Your task to perform on an android device: toggle notification dots Image 0: 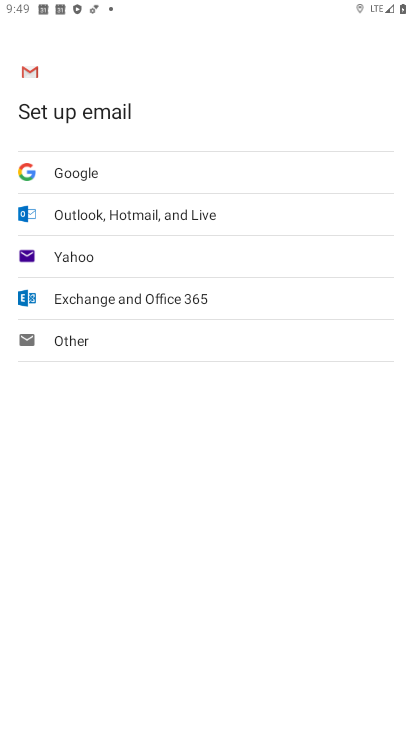
Step 0: drag from (223, 535) to (216, 6)
Your task to perform on an android device: toggle notification dots Image 1: 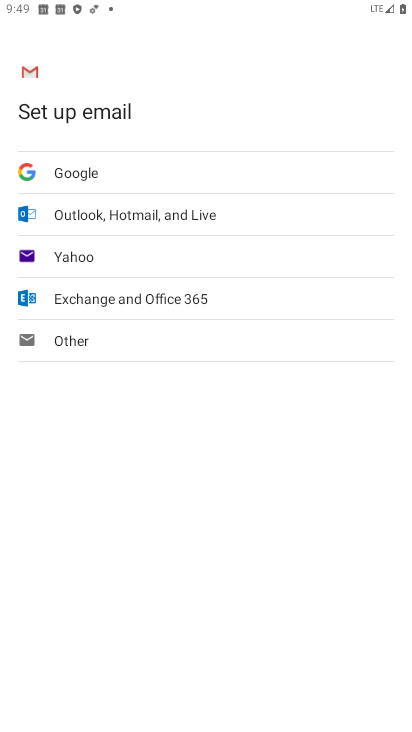
Step 1: click (139, 543)
Your task to perform on an android device: toggle notification dots Image 2: 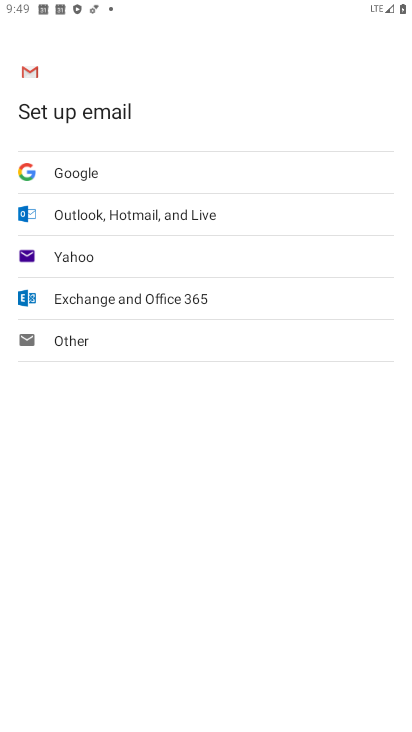
Step 2: press home button
Your task to perform on an android device: toggle notification dots Image 3: 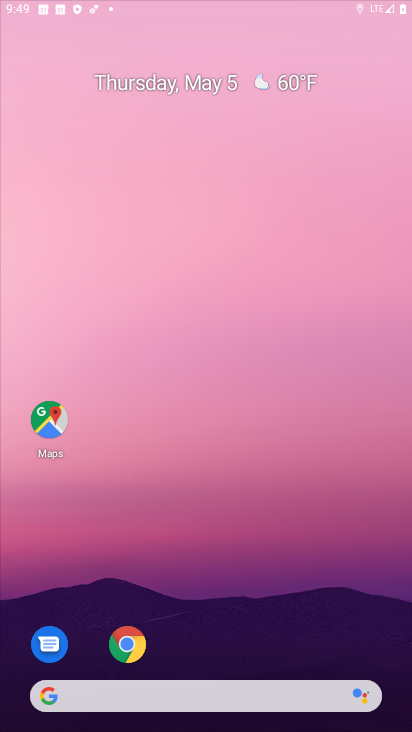
Step 3: drag from (196, 552) to (220, 138)
Your task to perform on an android device: toggle notification dots Image 4: 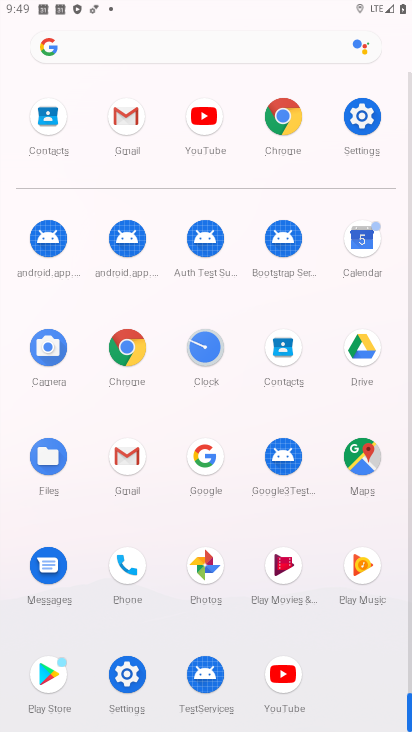
Step 4: click (363, 124)
Your task to perform on an android device: toggle notification dots Image 5: 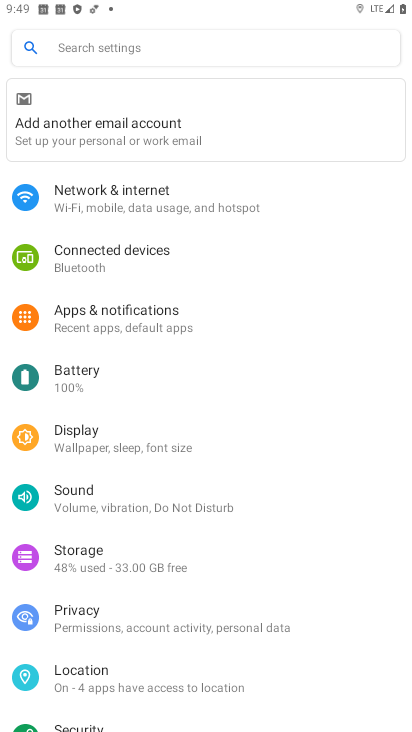
Step 5: click (148, 322)
Your task to perform on an android device: toggle notification dots Image 6: 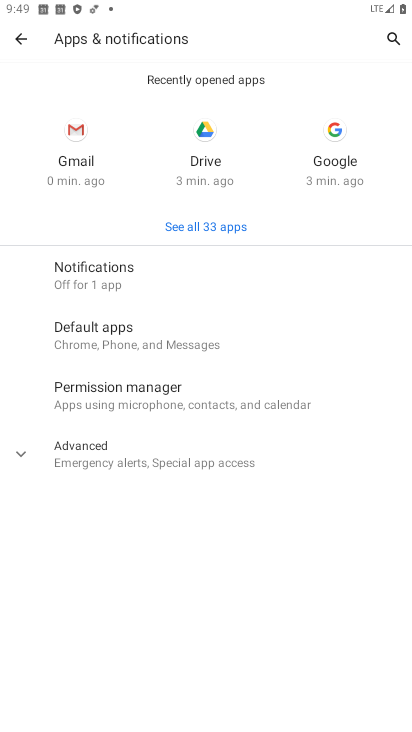
Step 6: click (122, 267)
Your task to perform on an android device: toggle notification dots Image 7: 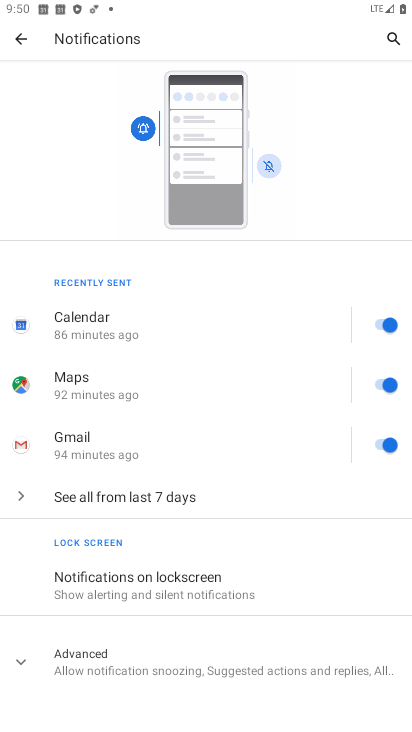
Step 7: click (105, 663)
Your task to perform on an android device: toggle notification dots Image 8: 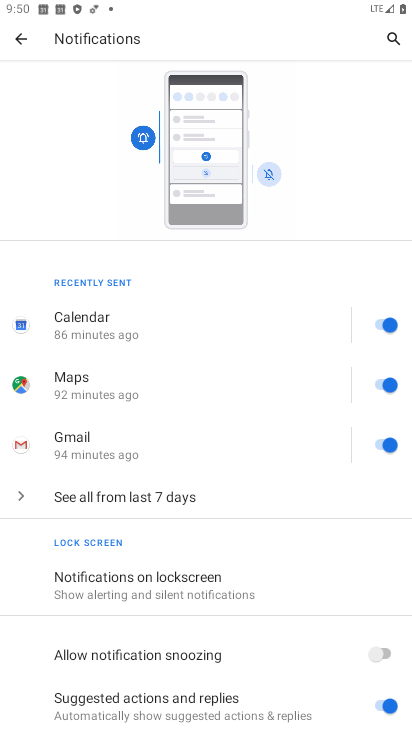
Step 8: drag from (177, 664) to (248, 227)
Your task to perform on an android device: toggle notification dots Image 9: 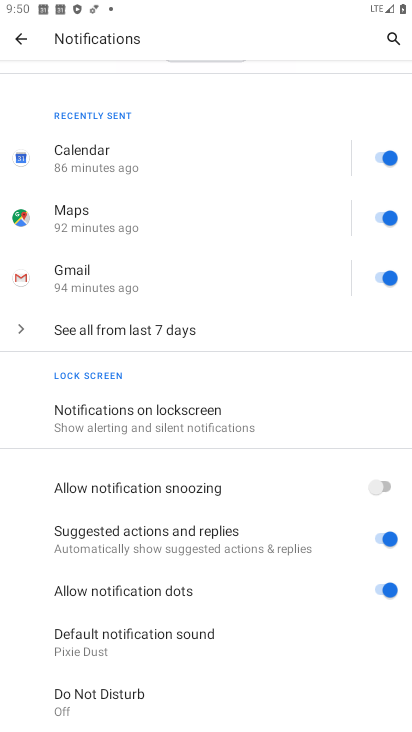
Step 9: click (378, 582)
Your task to perform on an android device: toggle notification dots Image 10: 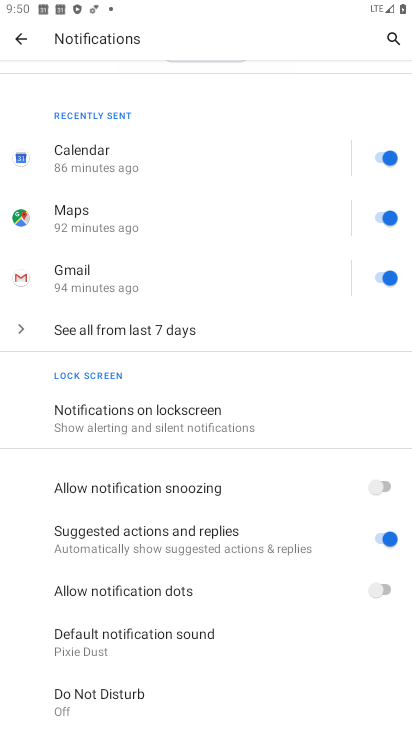
Step 10: task complete